Your task to perform on an android device: allow notifications from all sites in the chrome app Image 0: 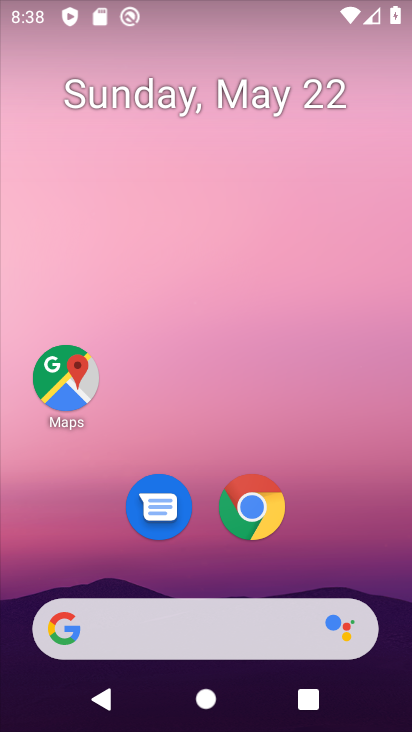
Step 0: click (255, 505)
Your task to perform on an android device: allow notifications from all sites in the chrome app Image 1: 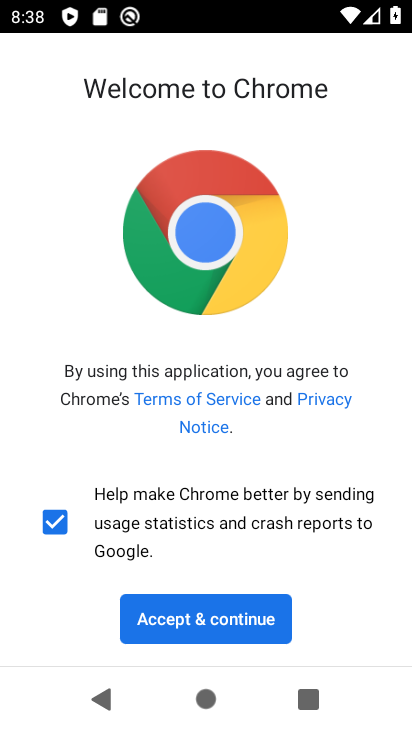
Step 1: click (206, 619)
Your task to perform on an android device: allow notifications from all sites in the chrome app Image 2: 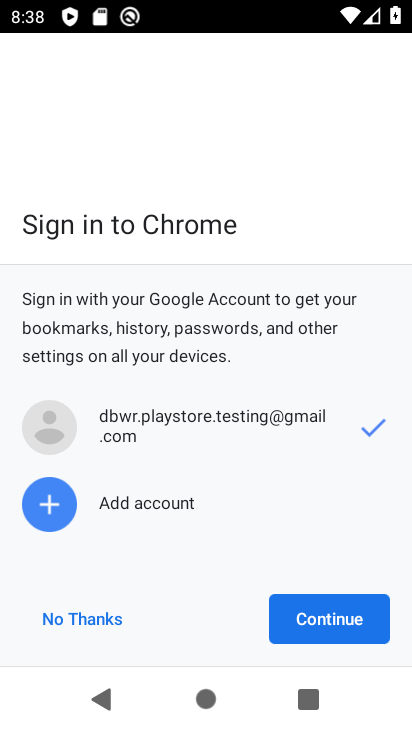
Step 2: click (329, 622)
Your task to perform on an android device: allow notifications from all sites in the chrome app Image 3: 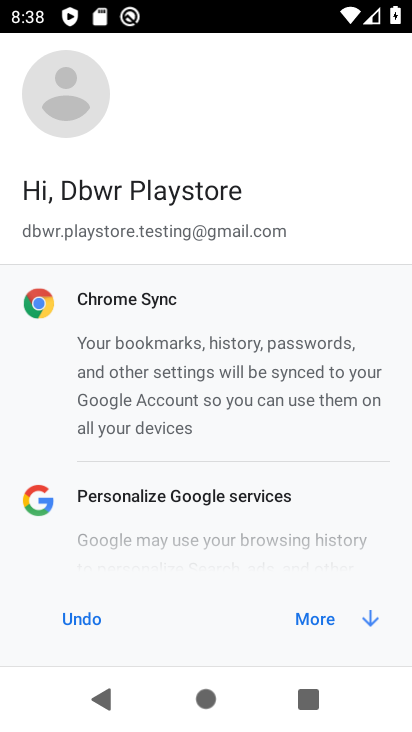
Step 3: click (329, 622)
Your task to perform on an android device: allow notifications from all sites in the chrome app Image 4: 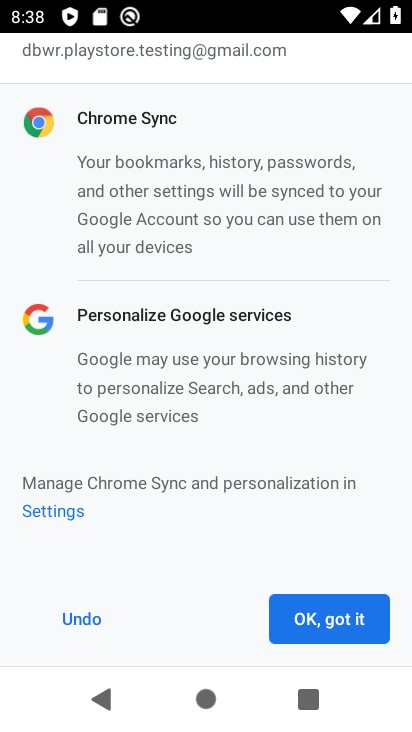
Step 4: click (329, 622)
Your task to perform on an android device: allow notifications from all sites in the chrome app Image 5: 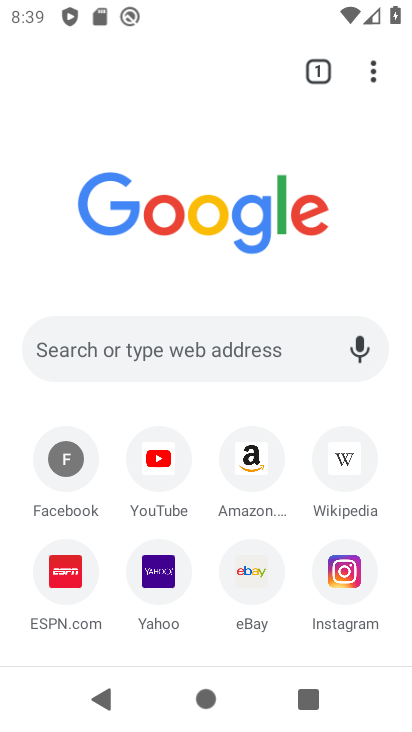
Step 5: click (372, 79)
Your task to perform on an android device: allow notifications from all sites in the chrome app Image 6: 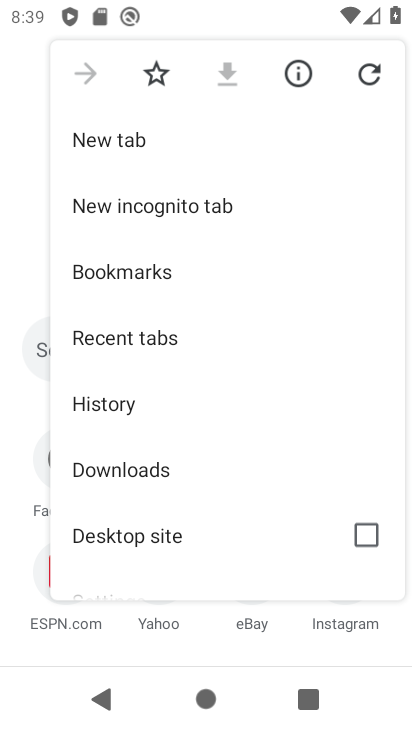
Step 6: drag from (208, 536) to (248, 186)
Your task to perform on an android device: allow notifications from all sites in the chrome app Image 7: 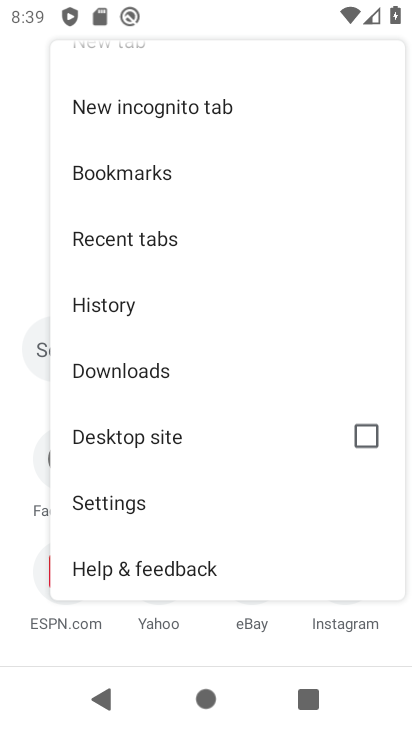
Step 7: click (110, 507)
Your task to perform on an android device: allow notifications from all sites in the chrome app Image 8: 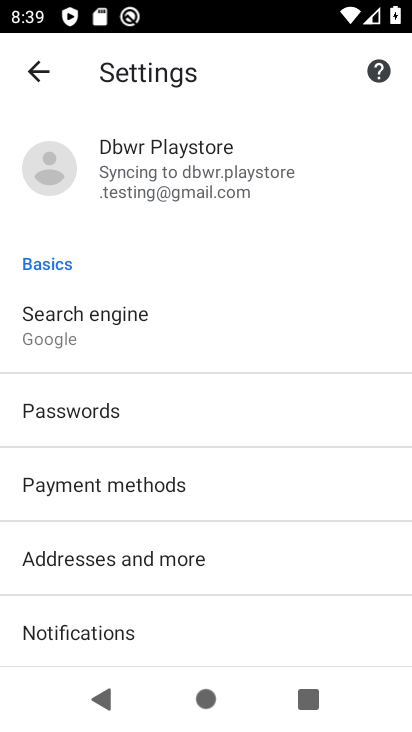
Step 8: drag from (251, 611) to (266, 191)
Your task to perform on an android device: allow notifications from all sites in the chrome app Image 9: 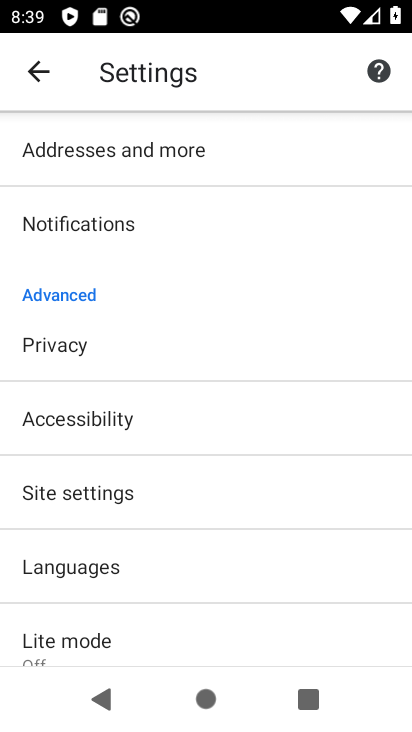
Step 9: click (54, 495)
Your task to perform on an android device: allow notifications from all sites in the chrome app Image 10: 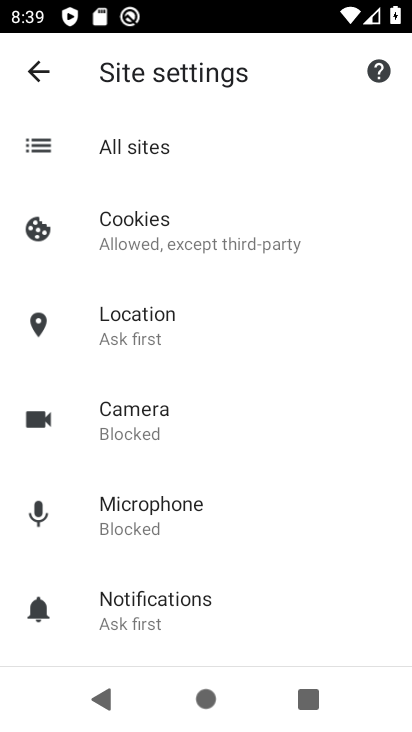
Step 10: click (107, 604)
Your task to perform on an android device: allow notifications from all sites in the chrome app Image 11: 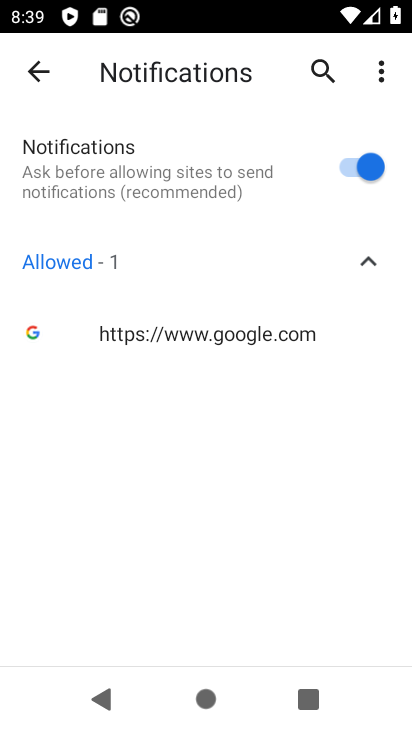
Step 11: task complete